Your task to perform on an android device: delete a single message in the gmail app Image 0: 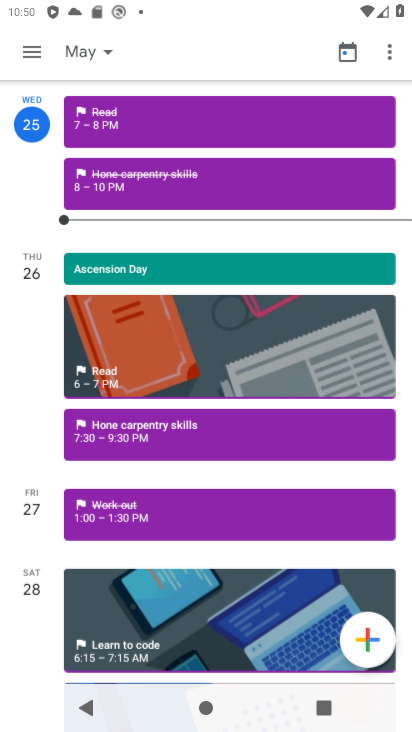
Step 0: drag from (379, 616) to (271, 90)
Your task to perform on an android device: delete a single message in the gmail app Image 1: 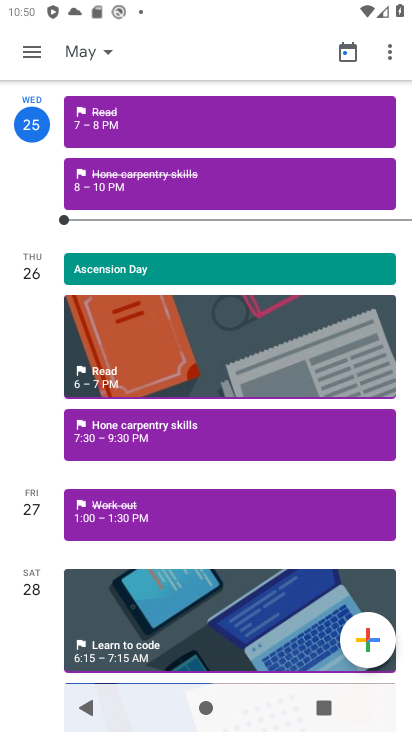
Step 1: press home button
Your task to perform on an android device: delete a single message in the gmail app Image 2: 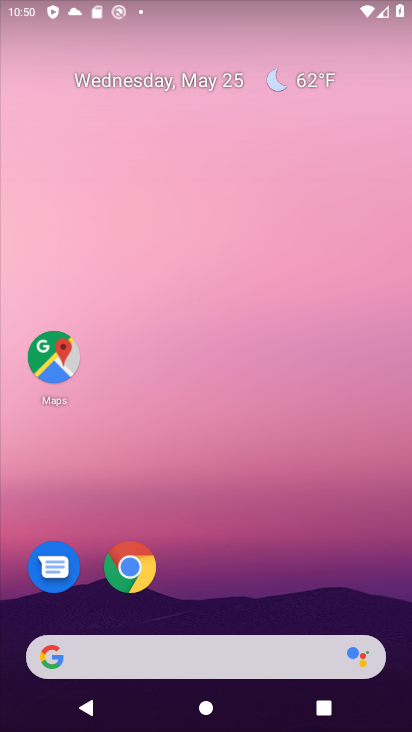
Step 2: drag from (342, 633) to (273, 14)
Your task to perform on an android device: delete a single message in the gmail app Image 3: 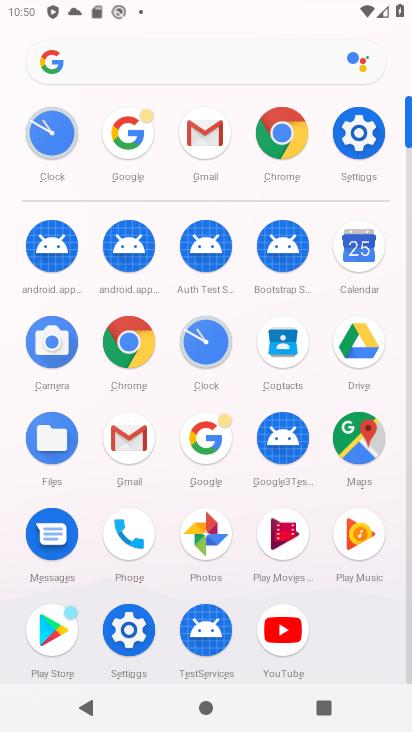
Step 3: click (156, 428)
Your task to perform on an android device: delete a single message in the gmail app Image 4: 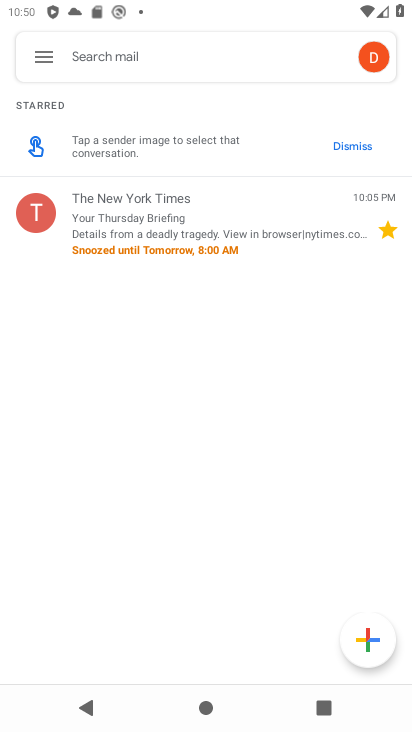
Step 4: click (32, 63)
Your task to perform on an android device: delete a single message in the gmail app Image 5: 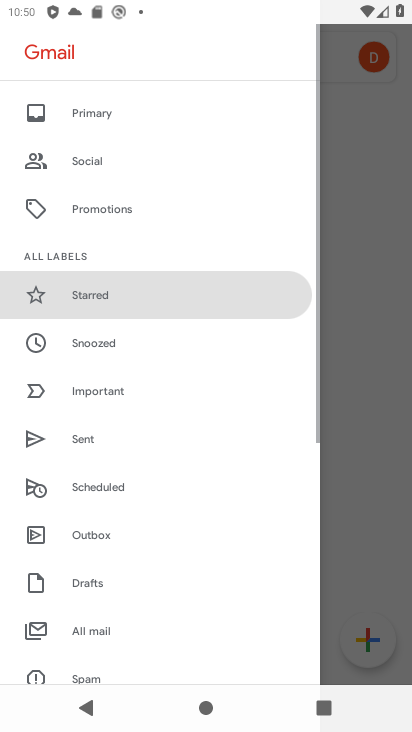
Step 5: drag from (77, 107) to (126, 603)
Your task to perform on an android device: delete a single message in the gmail app Image 6: 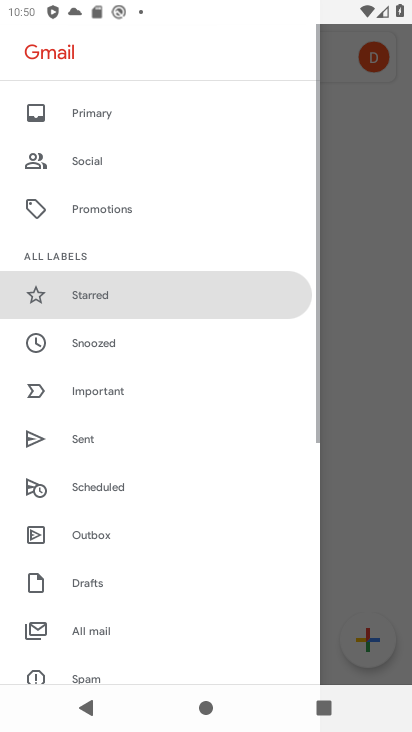
Step 6: click (97, 120)
Your task to perform on an android device: delete a single message in the gmail app Image 7: 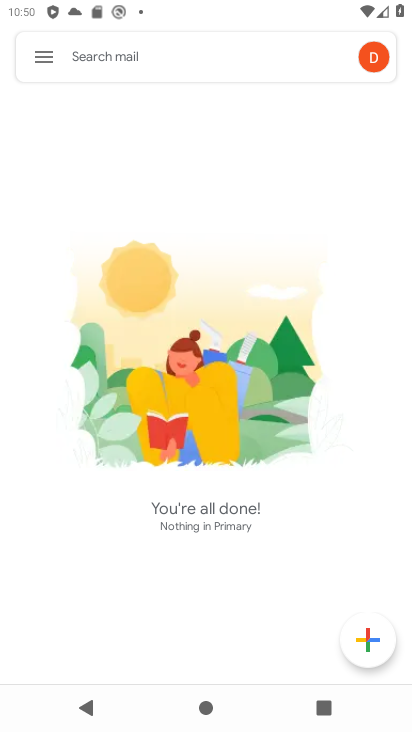
Step 7: task complete